Your task to perform on an android device: Open Google Maps and go to "Timeline" Image 0: 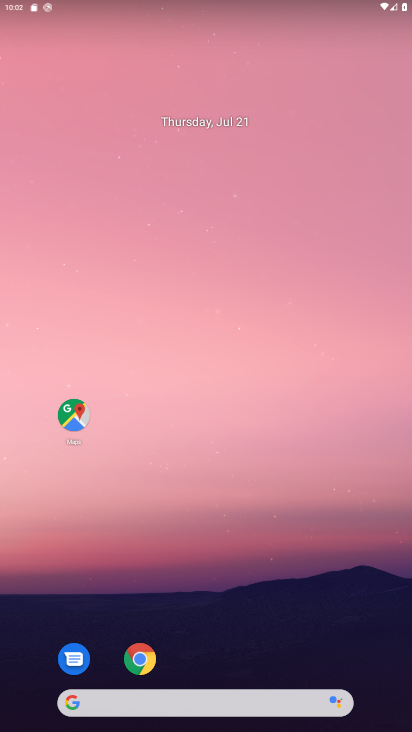
Step 0: drag from (290, 599) to (241, 23)
Your task to perform on an android device: Open Google Maps and go to "Timeline" Image 1: 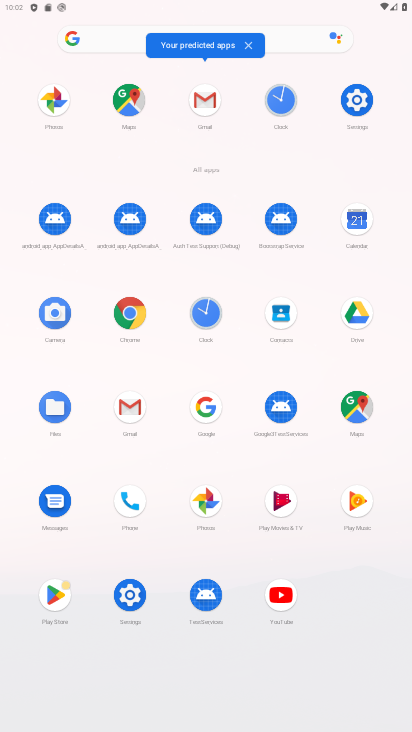
Step 1: click (364, 411)
Your task to perform on an android device: Open Google Maps and go to "Timeline" Image 2: 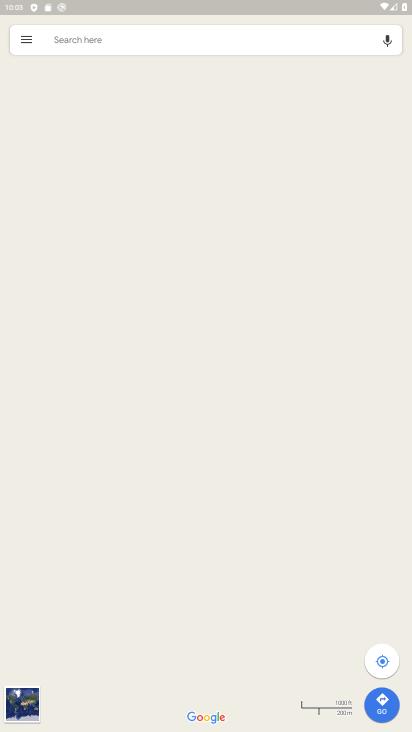
Step 2: click (34, 43)
Your task to perform on an android device: Open Google Maps and go to "Timeline" Image 3: 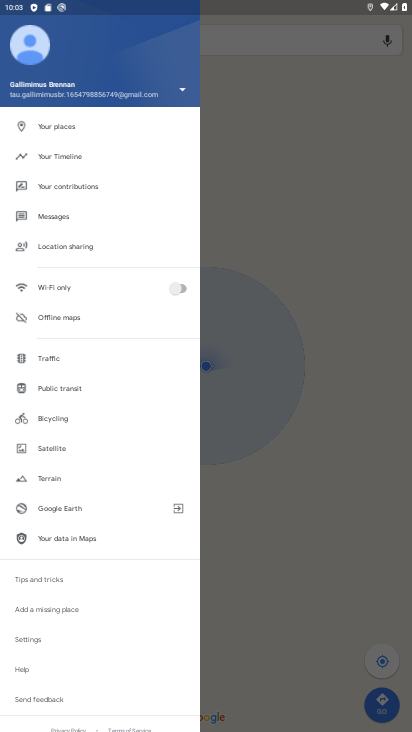
Step 3: click (72, 156)
Your task to perform on an android device: Open Google Maps and go to "Timeline" Image 4: 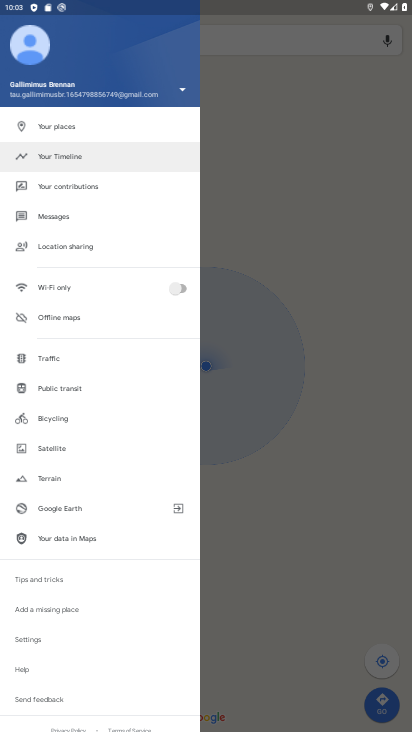
Step 4: click (50, 159)
Your task to perform on an android device: Open Google Maps and go to "Timeline" Image 5: 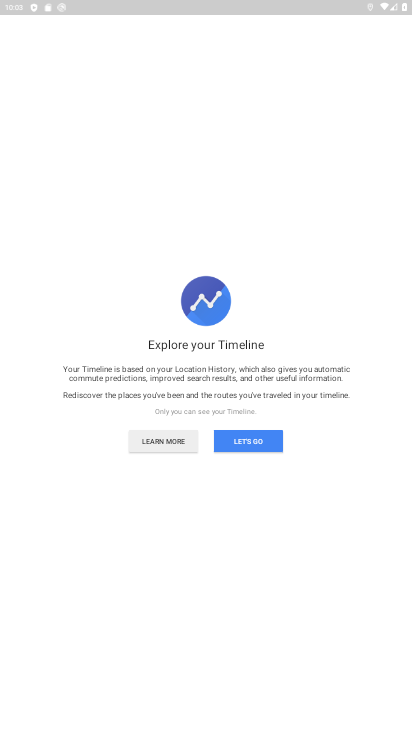
Step 5: click (259, 433)
Your task to perform on an android device: Open Google Maps and go to "Timeline" Image 6: 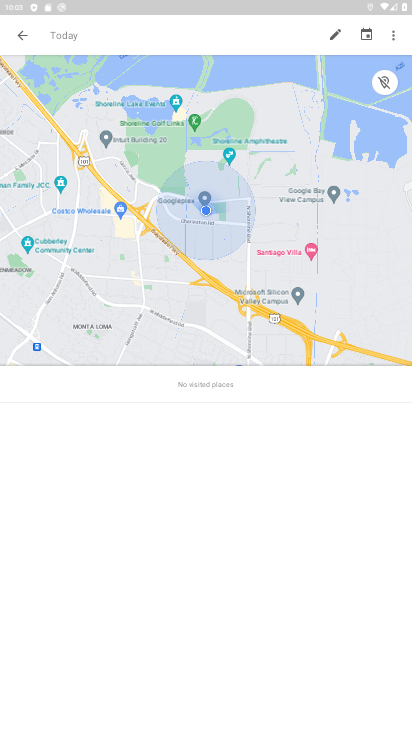
Step 6: task complete